Your task to perform on an android device: open the mobile data screen to see how much data has been used Image 0: 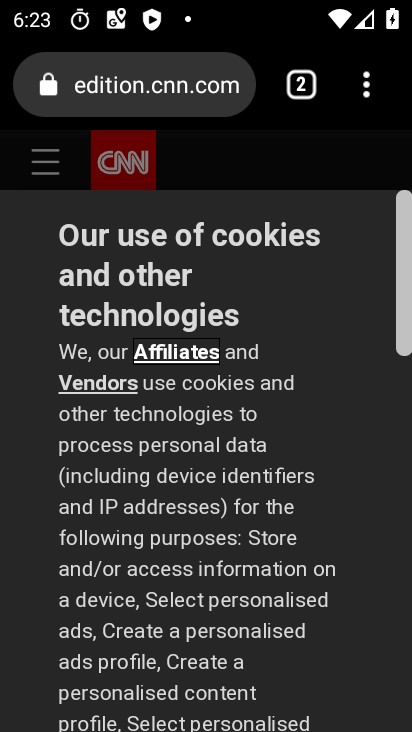
Step 0: press home button
Your task to perform on an android device: open the mobile data screen to see how much data has been used Image 1: 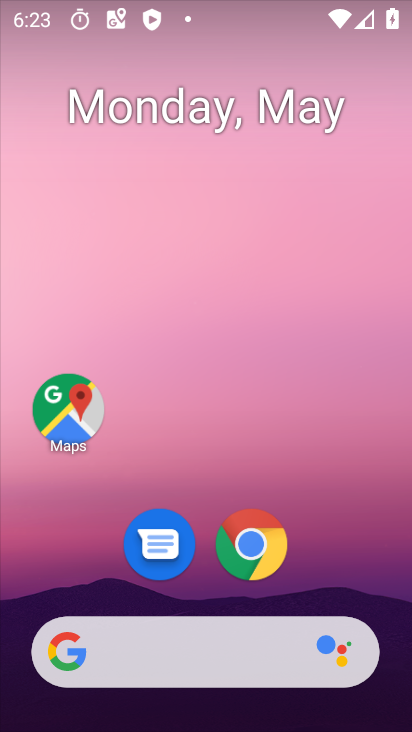
Step 1: drag from (326, 533) to (170, 15)
Your task to perform on an android device: open the mobile data screen to see how much data has been used Image 2: 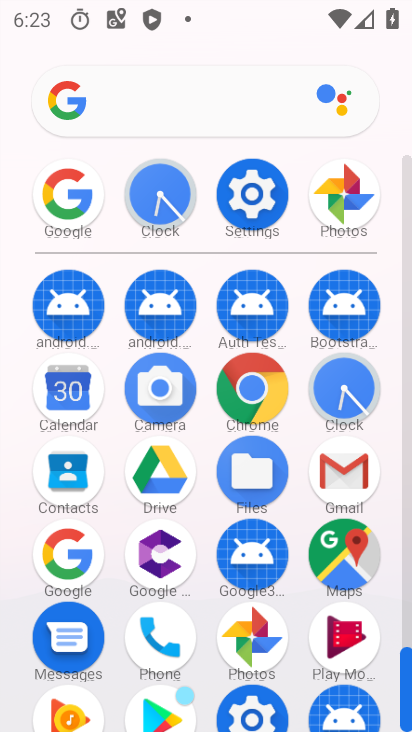
Step 2: click (244, 201)
Your task to perform on an android device: open the mobile data screen to see how much data has been used Image 3: 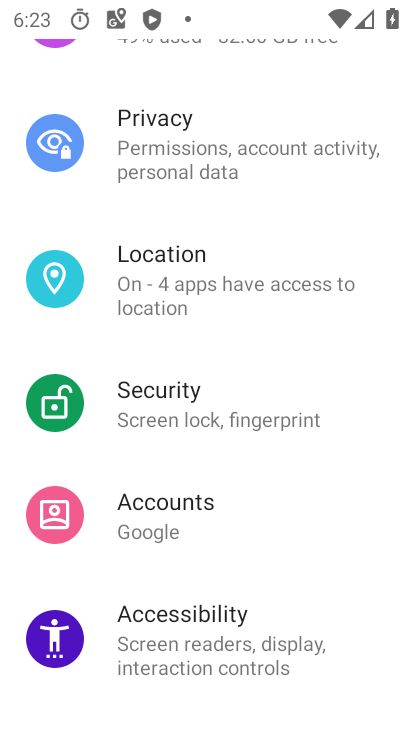
Step 3: drag from (260, 124) to (167, 715)
Your task to perform on an android device: open the mobile data screen to see how much data has been used Image 4: 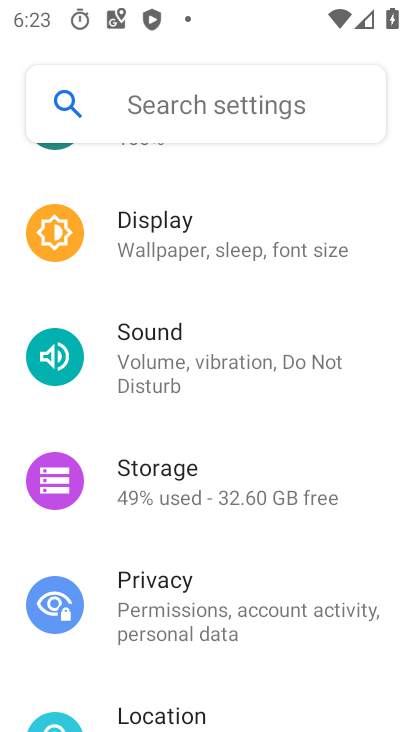
Step 4: drag from (236, 213) to (168, 731)
Your task to perform on an android device: open the mobile data screen to see how much data has been used Image 5: 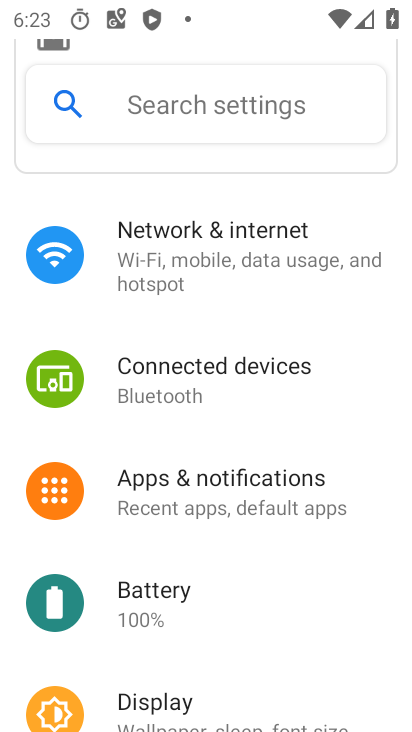
Step 5: click (157, 232)
Your task to perform on an android device: open the mobile data screen to see how much data has been used Image 6: 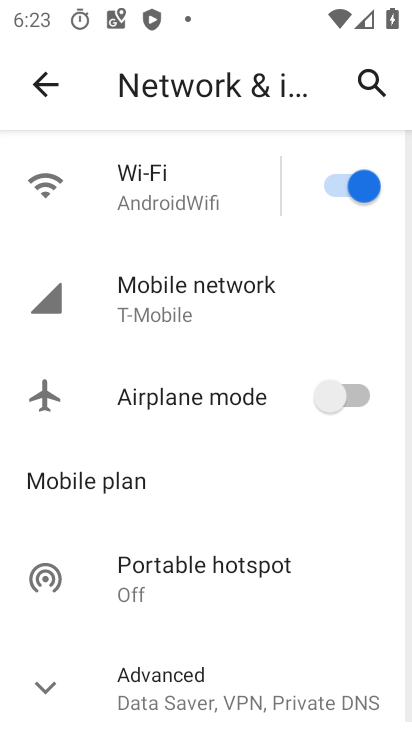
Step 6: click (196, 292)
Your task to perform on an android device: open the mobile data screen to see how much data has been used Image 7: 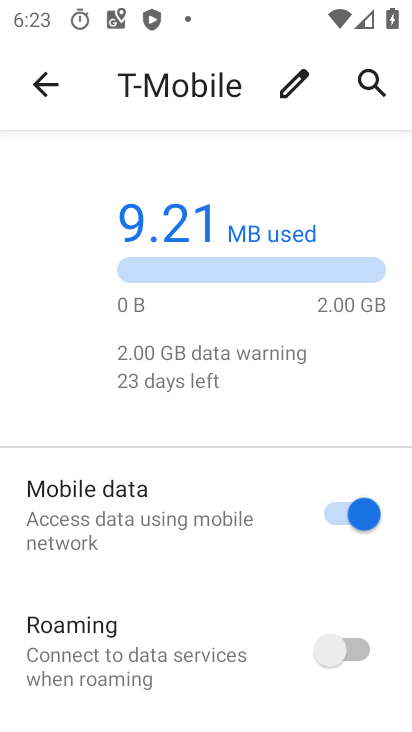
Step 7: task complete